Your task to perform on an android device: turn pop-ups off in chrome Image 0: 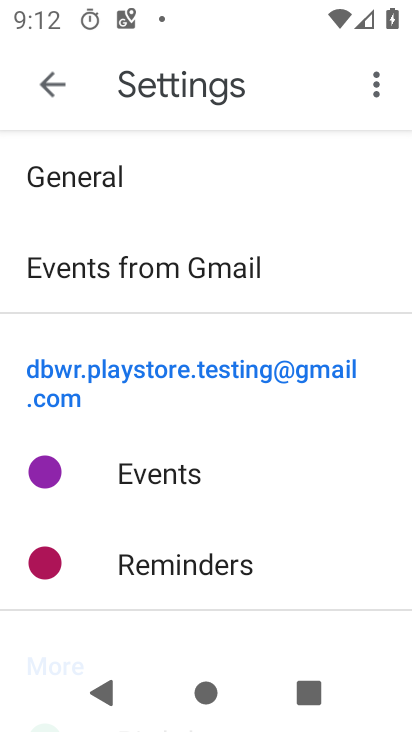
Step 0: press home button
Your task to perform on an android device: turn pop-ups off in chrome Image 1: 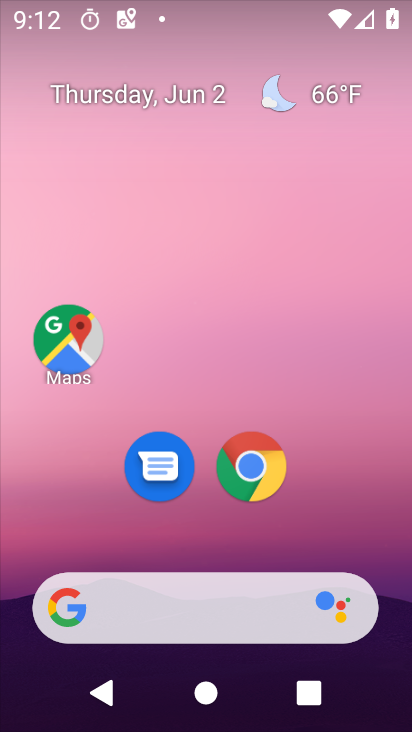
Step 1: click (245, 477)
Your task to perform on an android device: turn pop-ups off in chrome Image 2: 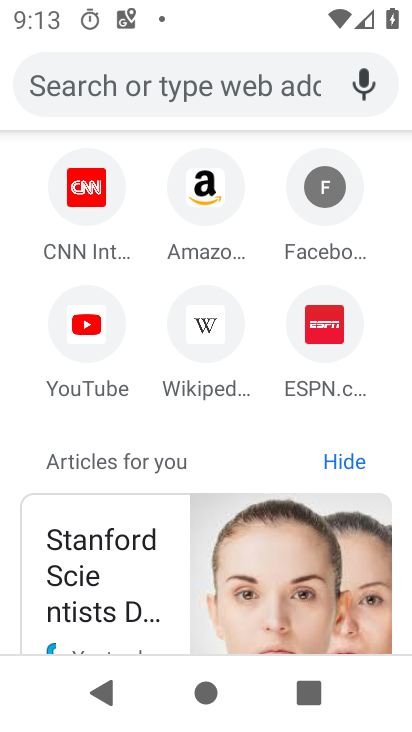
Step 2: drag from (187, 150) to (140, 661)
Your task to perform on an android device: turn pop-ups off in chrome Image 3: 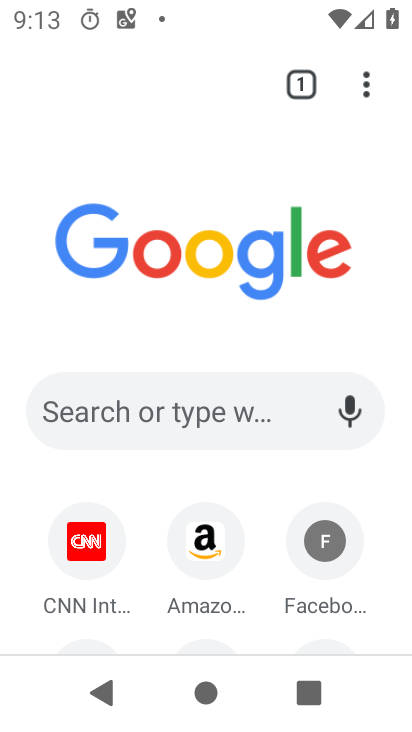
Step 3: click (358, 84)
Your task to perform on an android device: turn pop-ups off in chrome Image 4: 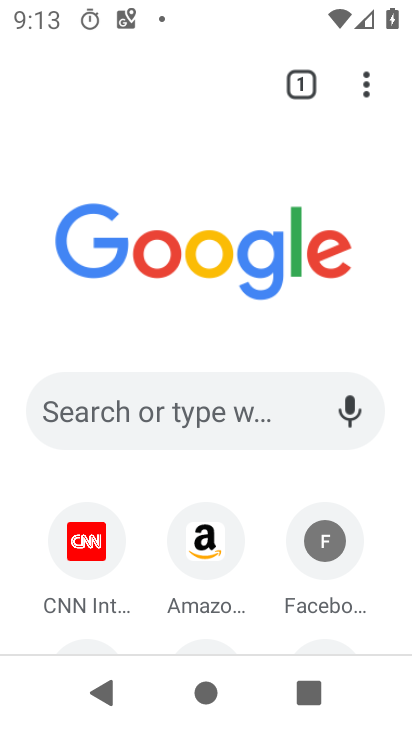
Step 4: click (371, 72)
Your task to perform on an android device: turn pop-ups off in chrome Image 5: 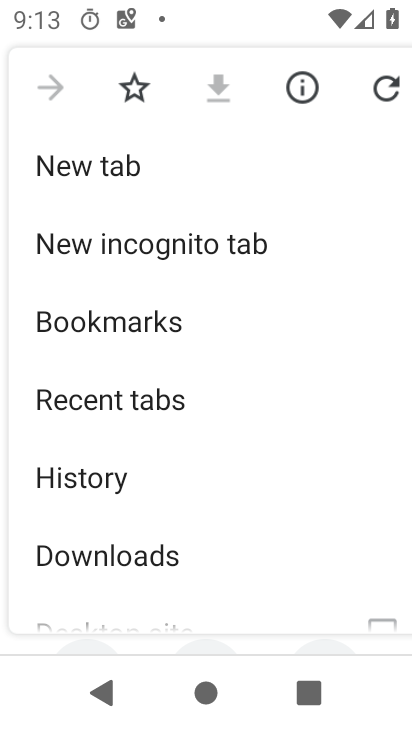
Step 5: drag from (6, 540) to (285, 73)
Your task to perform on an android device: turn pop-ups off in chrome Image 6: 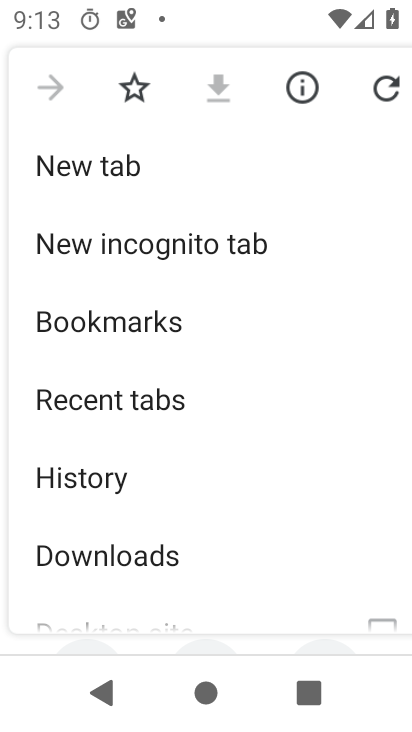
Step 6: drag from (21, 501) to (172, 164)
Your task to perform on an android device: turn pop-ups off in chrome Image 7: 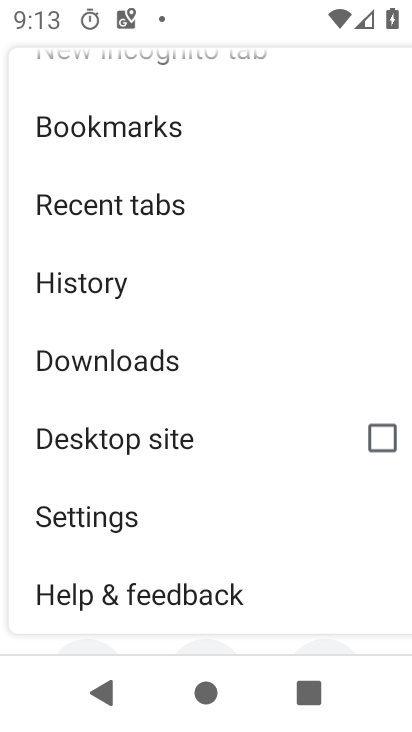
Step 7: click (74, 522)
Your task to perform on an android device: turn pop-ups off in chrome Image 8: 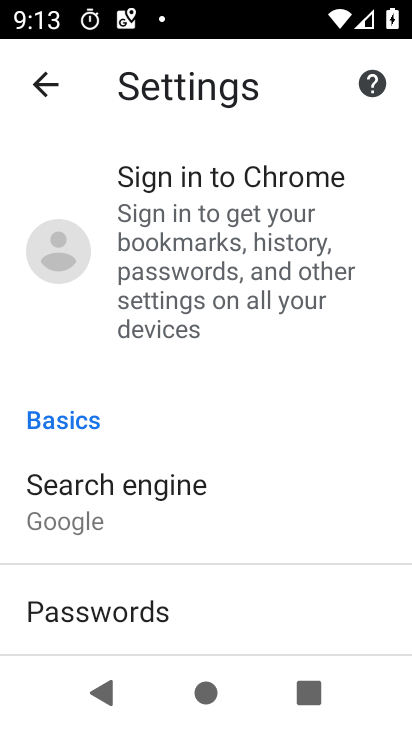
Step 8: drag from (0, 527) to (173, 189)
Your task to perform on an android device: turn pop-ups off in chrome Image 9: 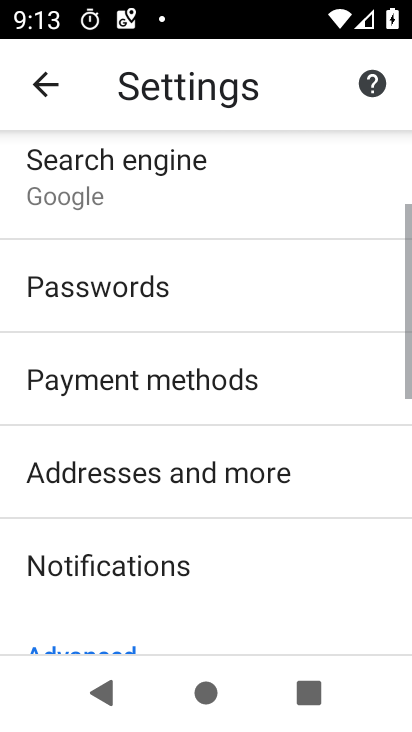
Step 9: drag from (19, 525) to (198, 241)
Your task to perform on an android device: turn pop-ups off in chrome Image 10: 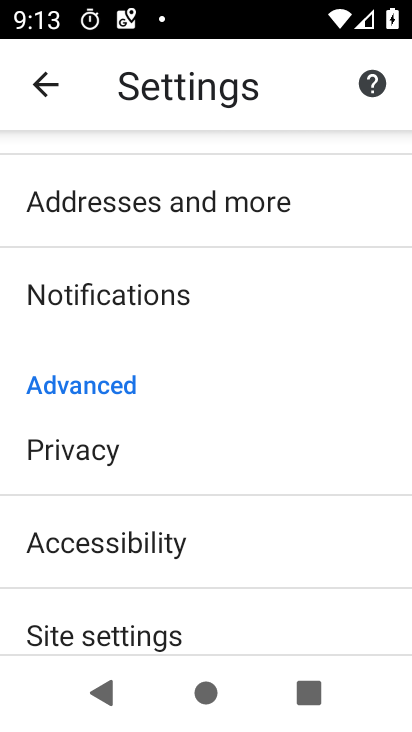
Step 10: click (83, 623)
Your task to perform on an android device: turn pop-ups off in chrome Image 11: 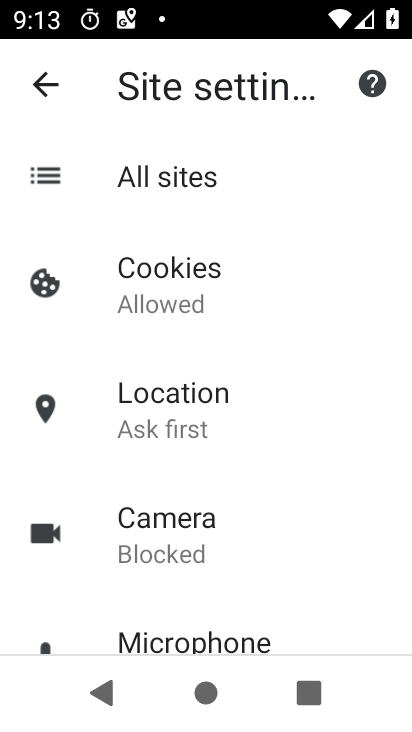
Step 11: drag from (7, 596) to (214, 217)
Your task to perform on an android device: turn pop-ups off in chrome Image 12: 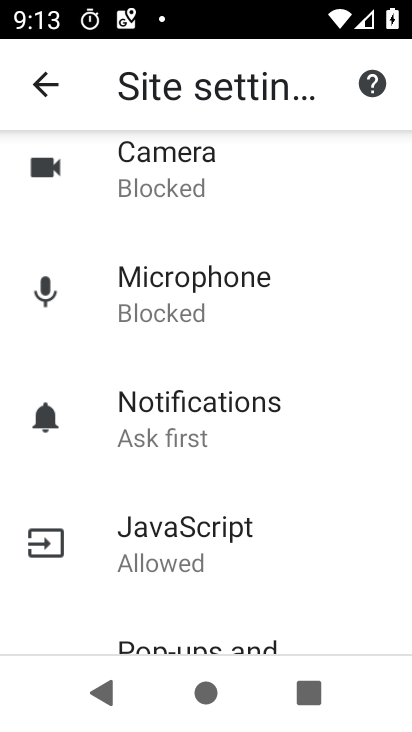
Step 12: drag from (11, 550) to (249, 297)
Your task to perform on an android device: turn pop-ups off in chrome Image 13: 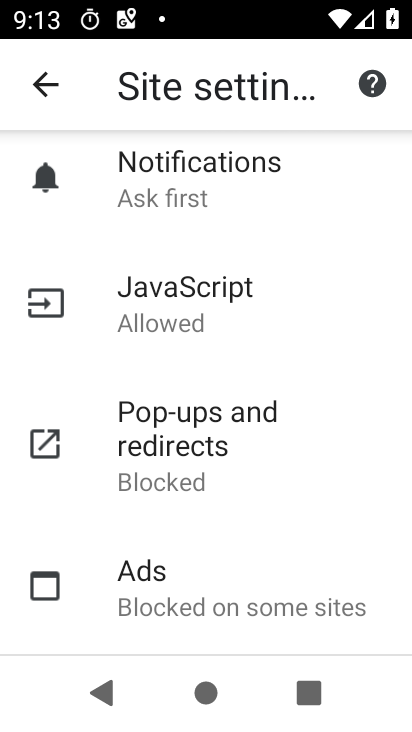
Step 13: click (126, 446)
Your task to perform on an android device: turn pop-ups off in chrome Image 14: 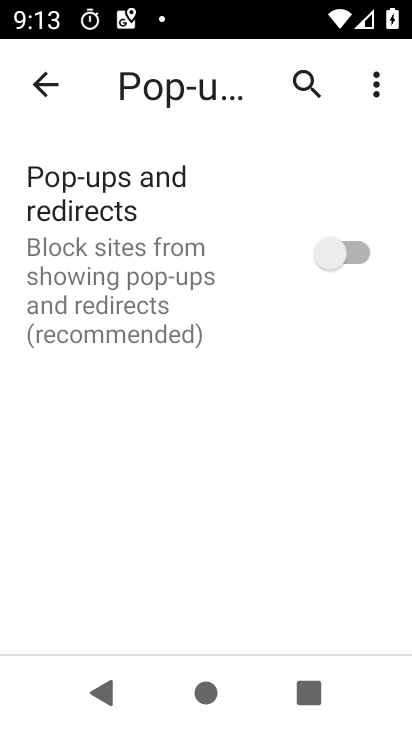
Step 14: task complete